Your task to perform on an android device: What's on my calendar tomorrow? Image 0: 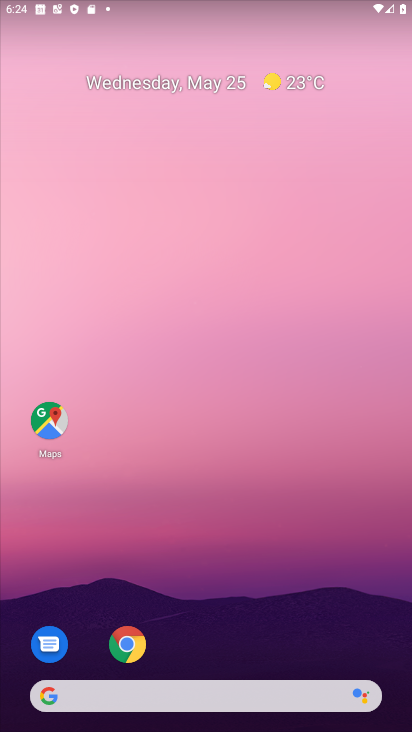
Step 0: drag from (305, 654) to (289, 0)
Your task to perform on an android device: What's on my calendar tomorrow? Image 1: 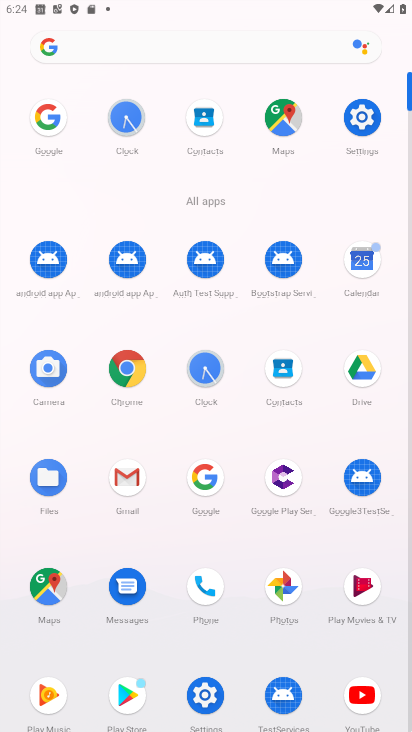
Step 1: click (375, 267)
Your task to perform on an android device: What's on my calendar tomorrow? Image 2: 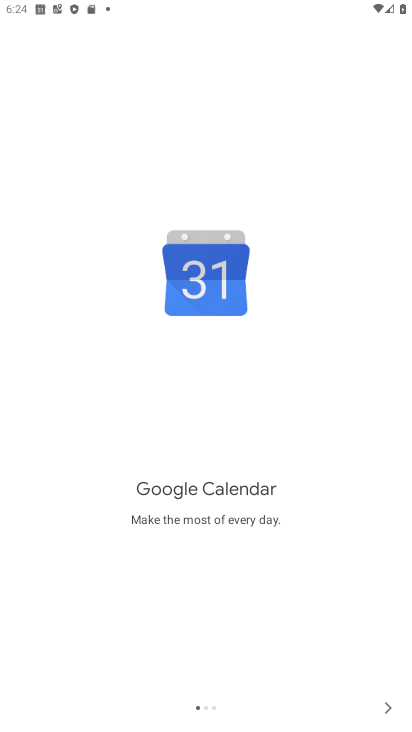
Step 2: click (391, 705)
Your task to perform on an android device: What's on my calendar tomorrow? Image 3: 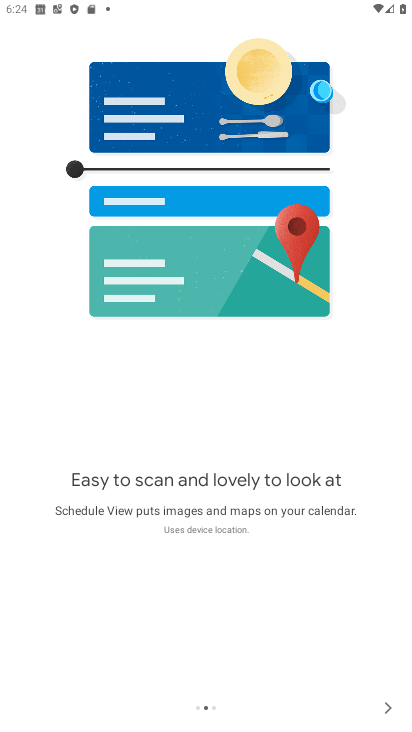
Step 3: click (391, 705)
Your task to perform on an android device: What's on my calendar tomorrow? Image 4: 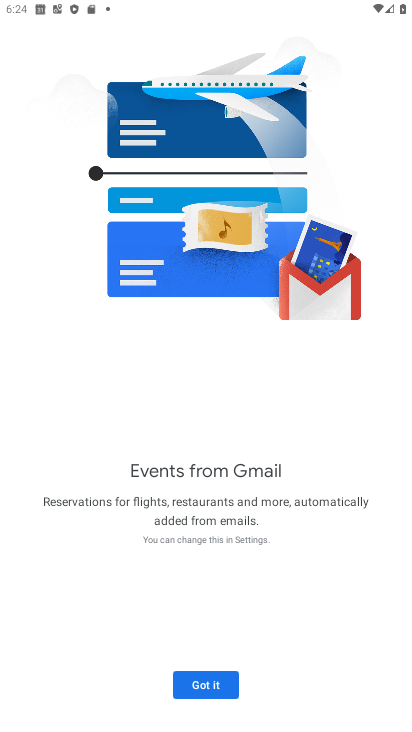
Step 4: click (194, 680)
Your task to perform on an android device: What's on my calendar tomorrow? Image 5: 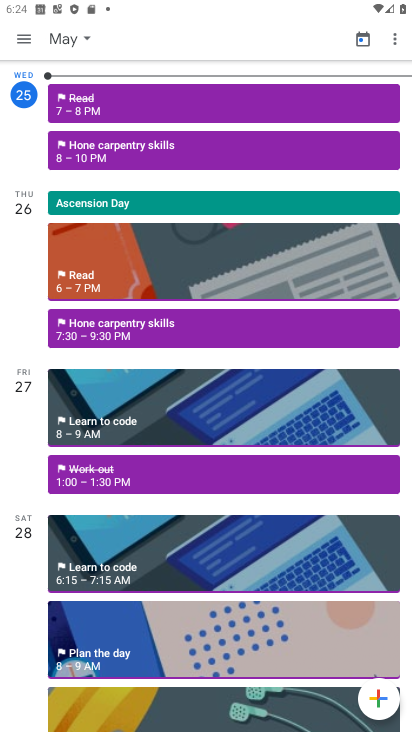
Step 5: click (48, 41)
Your task to perform on an android device: What's on my calendar tomorrow? Image 6: 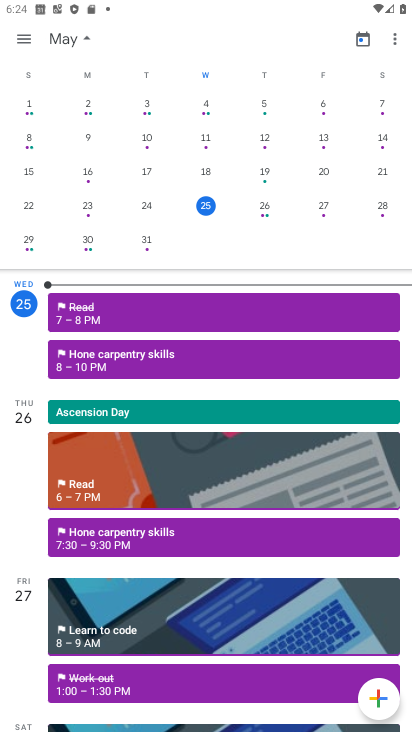
Step 6: click (325, 207)
Your task to perform on an android device: What's on my calendar tomorrow? Image 7: 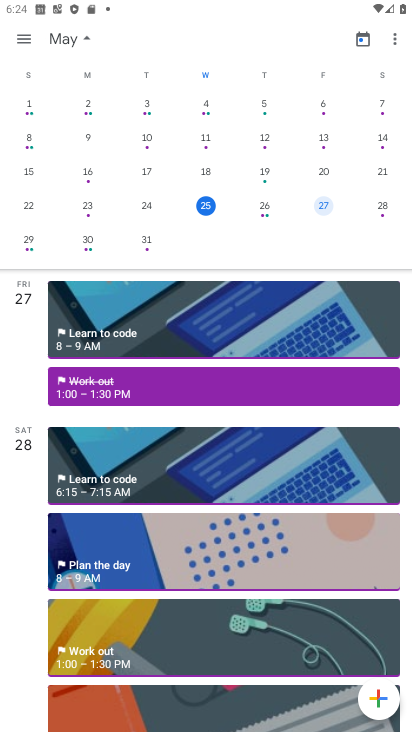
Step 7: click (155, 388)
Your task to perform on an android device: What's on my calendar tomorrow? Image 8: 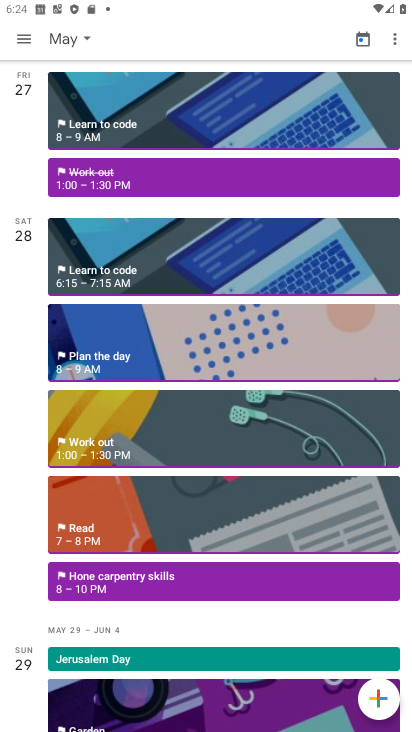
Step 8: click (146, 64)
Your task to perform on an android device: What's on my calendar tomorrow? Image 9: 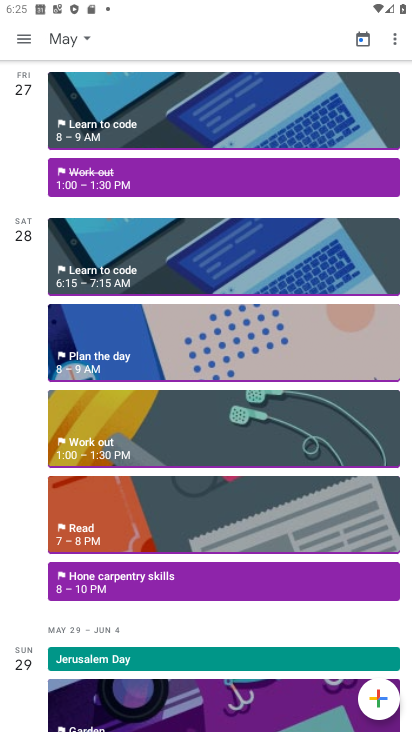
Step 9: click (217, 111)
Your task to perform on an android device: What's on my calendar tomorrow? Image 10: 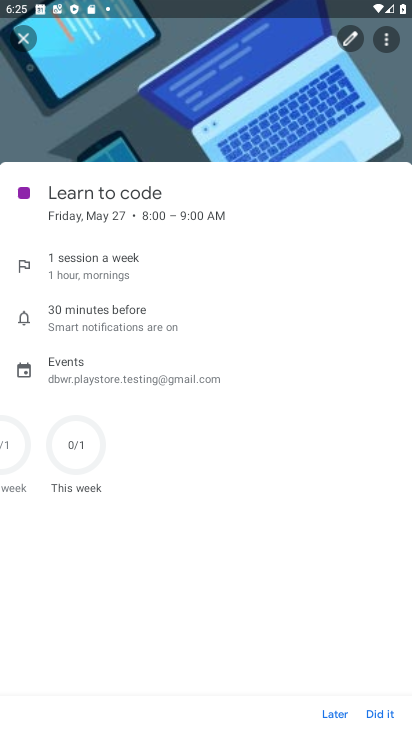
Step 10: task complete